Your task to perform on an android device: turn vacation reply on in the gmail app Image 0: 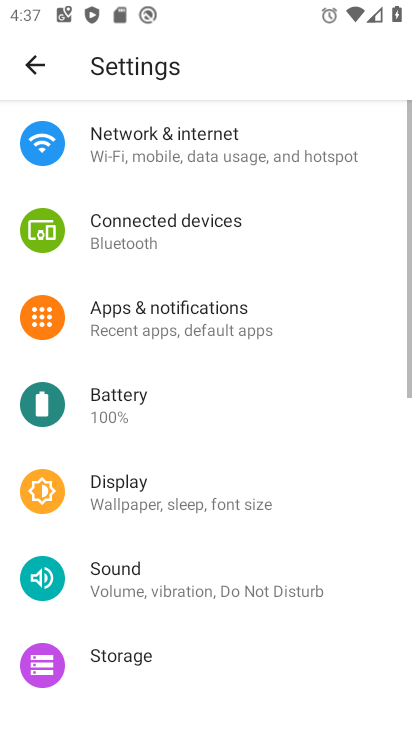
Step 0: drag from (168, 631) to (124, 261)
Your task to perform on an android device: turn vacation reply on in the gmail app Image 1: 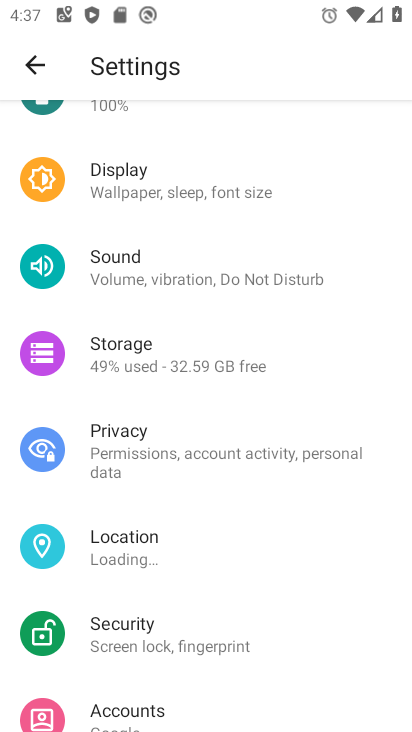
Step 1: press home button
Your task to perform on an android device: turn vacation reply on in the gmail app Image 2: 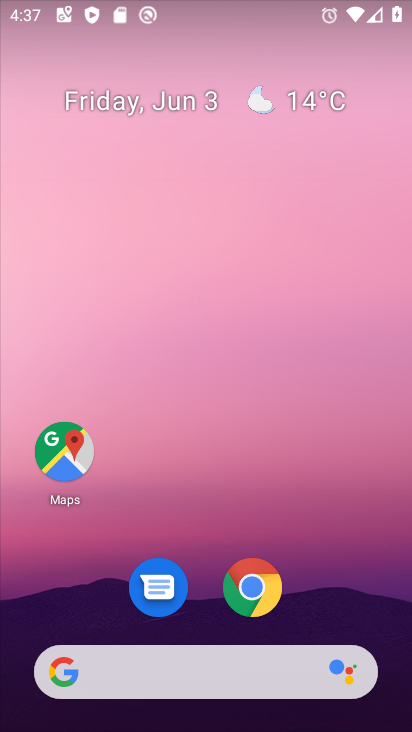
Step 2: drag from (184, 593) to (164, 232)
Your task to perform on an android device: turn vacation reply on in the gmail app Image 3: 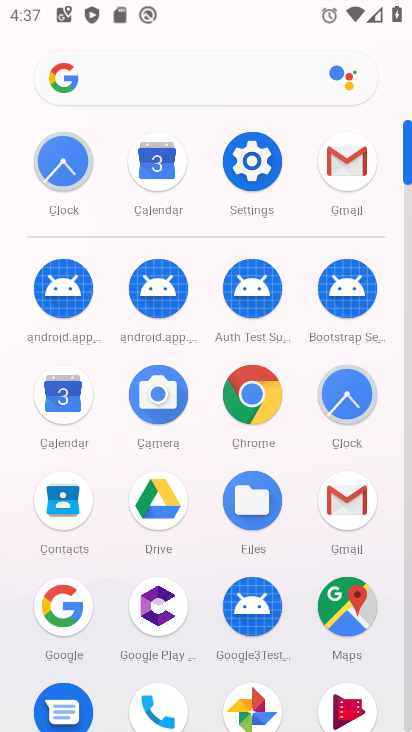
Step 3: drag from (193, 700) to (202, 340)
Your task to perform on an android device: turn vacation reply on in the gmail app Image 4: 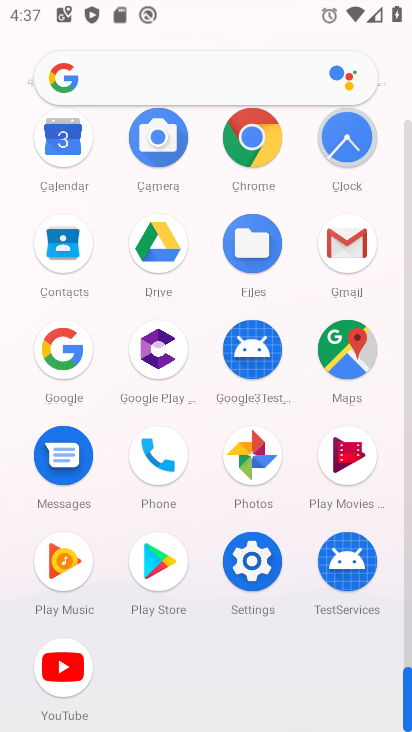
Step 4: click (362, 246)
Your task to perform on an android device: turn vacation reply on in the gmail app Image 5: 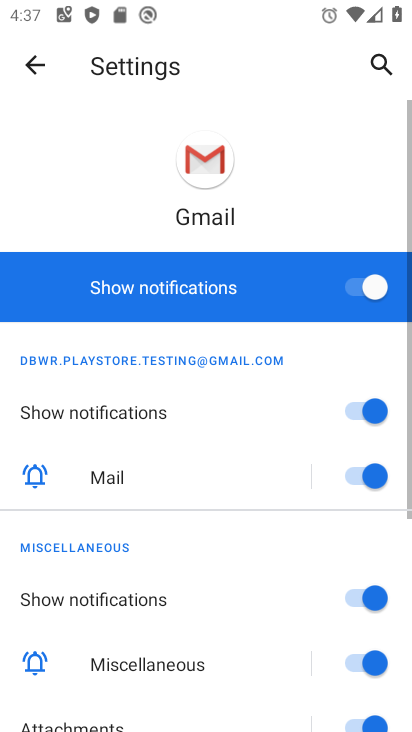
Step 5: click (25, 73)
Your task to perform on an android device: turn vacation reply on in the gmail app Image 6: 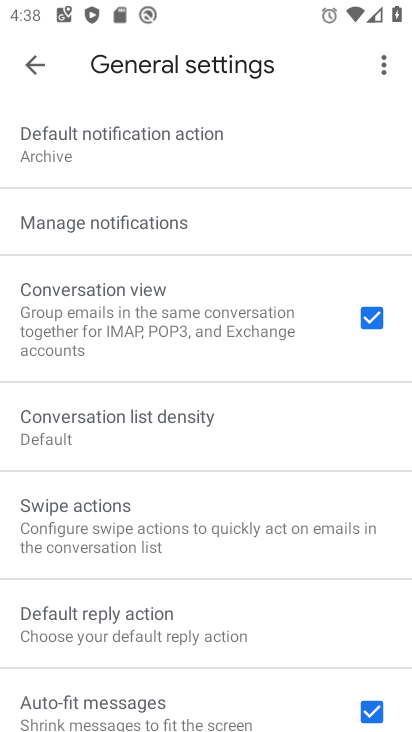
Step 6: drag from (114, 637) to (112, 435)
Your task to perform on an android device: turn vacation reply on in the gmail app Image 7: 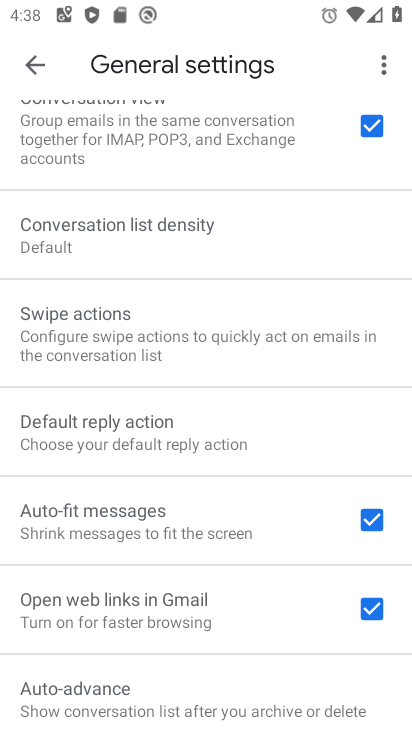
Step 7: drag from (129, 680) to (127, 302)
Your task to perform on an android device: turn vacation reply on in the gmail app Image 8: 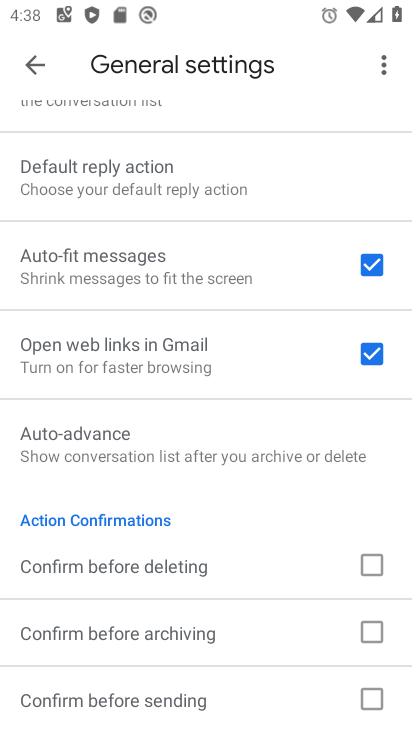
Step 8: click (37, 64)
Your task to perform on an android device: turn vacation reply on in the gmail app Image 9: 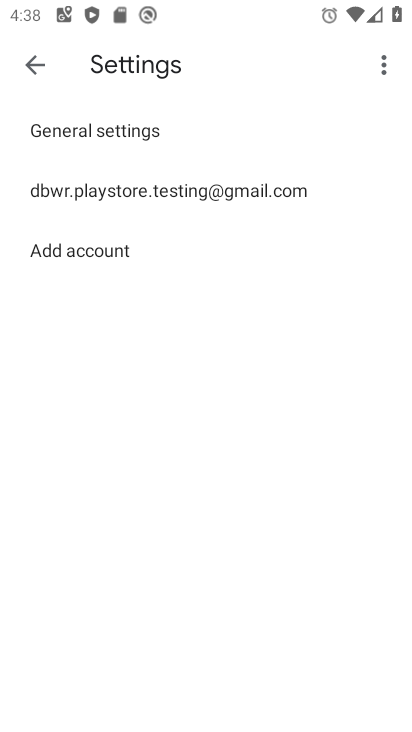
Step 9: click (100, 187)
Your task to perform on an android device: turn vacation reply on in the gmail app Image 10: 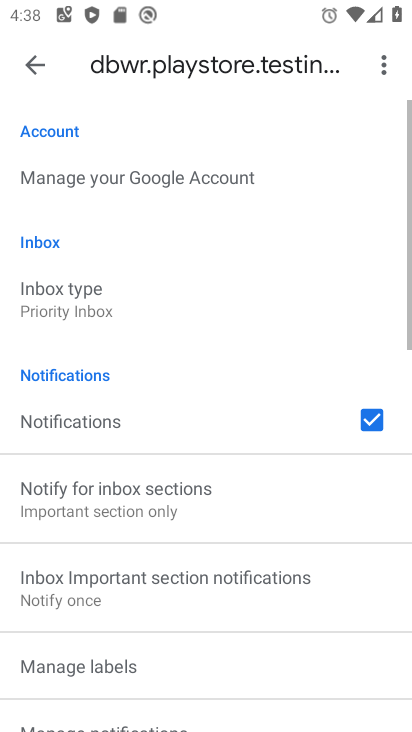
Step 10: task complete